Your task to perform on an android device: move a message to another label in the gmail app Image 0: 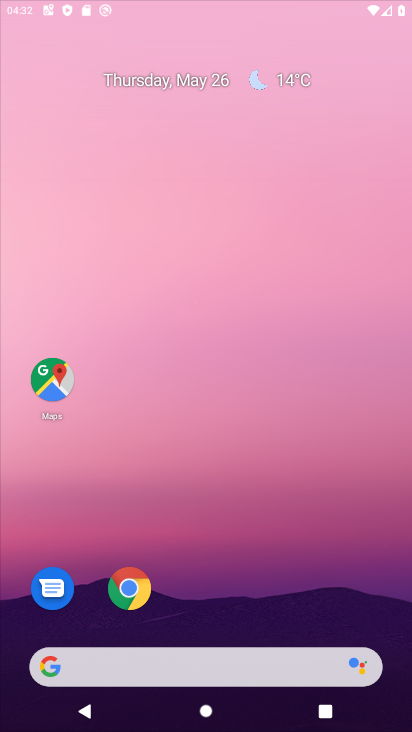
Step 0: drag from (310, 585) to (311, 165)
Your task to perform on an android device: move a message to another label in the gmail app Image 1: 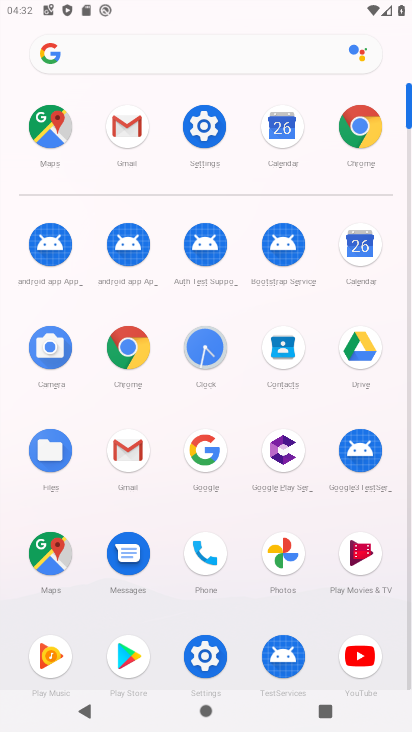
Step 1: click (128, 156)
Your task to perform on an android device: move a message to another label in the gmail app Image 2: 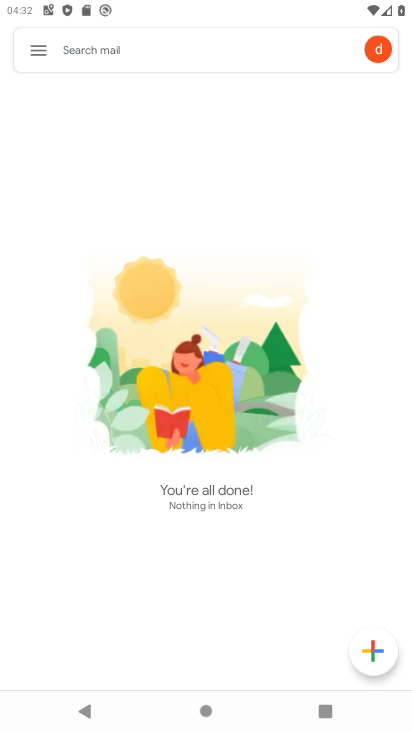
Step 2: task complete